Your task to perform on an android device: Set the phone to "Do not disturb". Image 0: 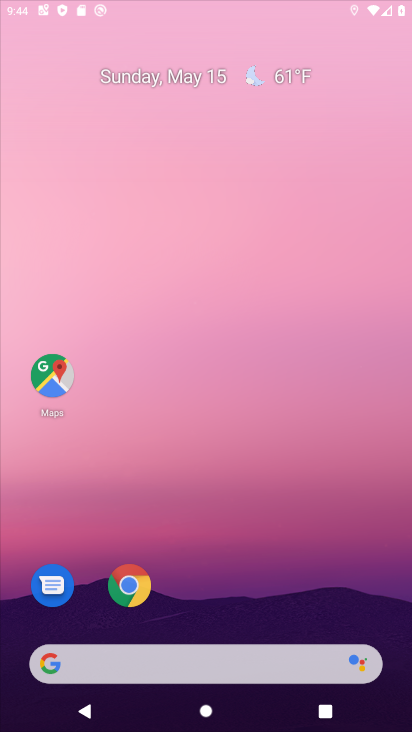
Step 0: click (404, 266)
Your task to perform on an android device: Set the phone to "Do not disturb". Image 1: 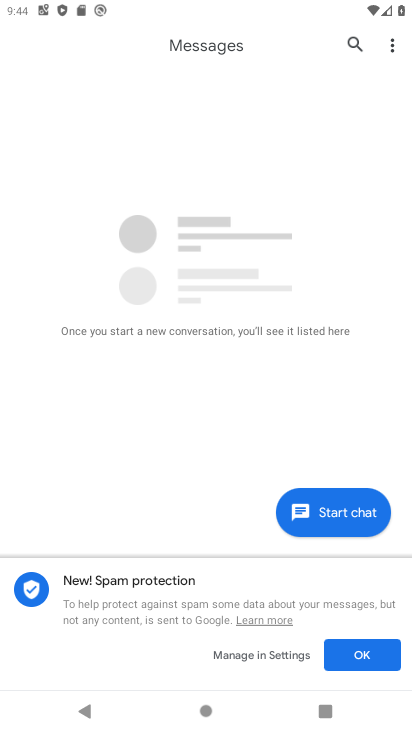
Step 1: press home button
Your task to perform on an android device: Set the phone to "Do not disturb". Image 2: 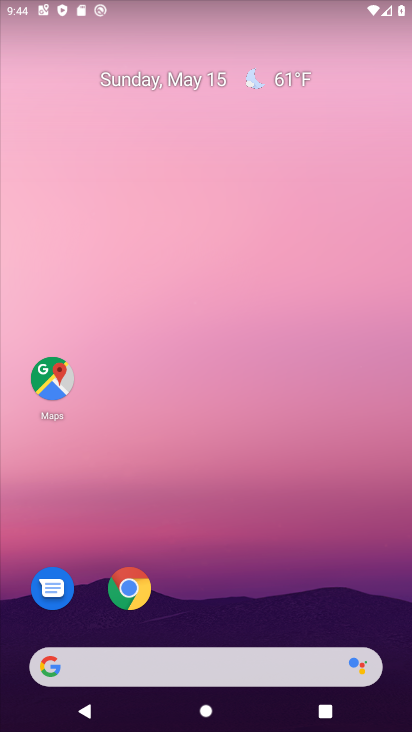
Step 2: drag from (217, 623) to (200, 5)
Your task to perform on an android device: Set the phone to "Do not disturb". Image 3: 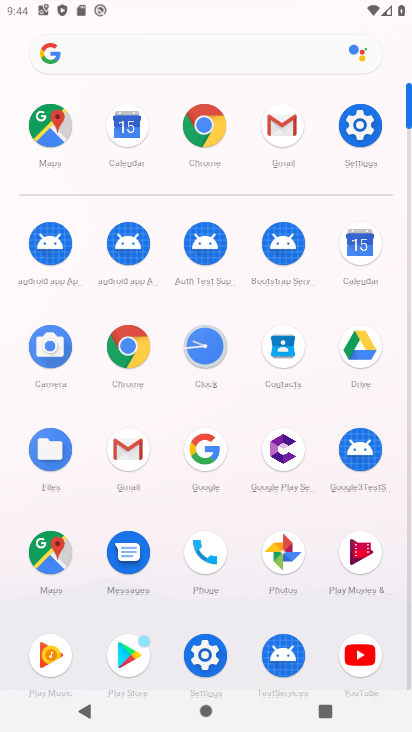
Step 3: click (361, 145)
Your task to perform on an android device: Set the phone to "Do not disturb". Image 4: 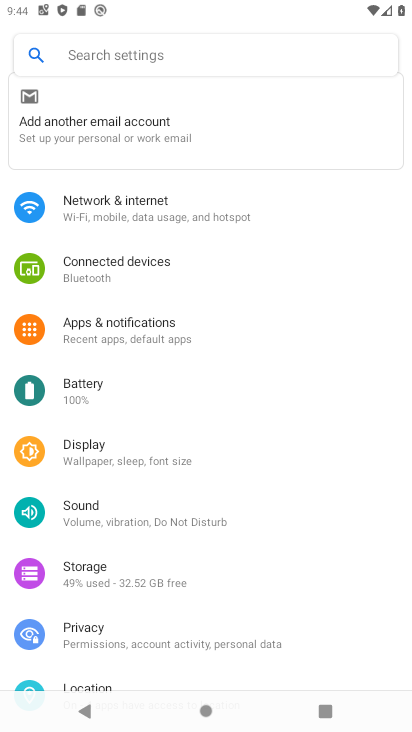
Step 4: click (129, 517)
Your task to perform on an android device: Set the phone to "Do not disturb". Image 5: 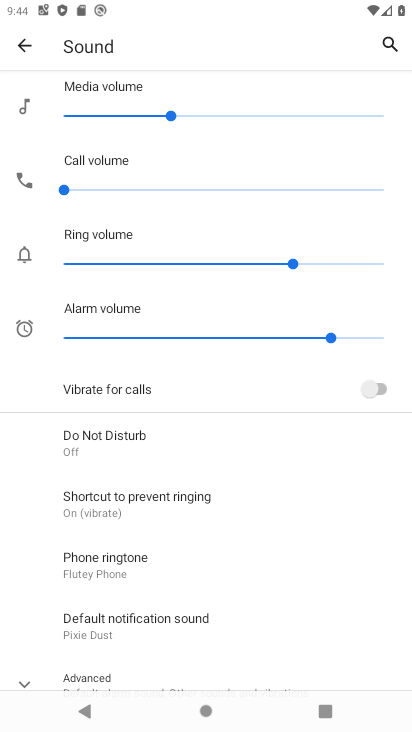
Step 5: click (88, 441)
Your task to perform on an android device: Set the phone to "Do not disturb". Image 6: 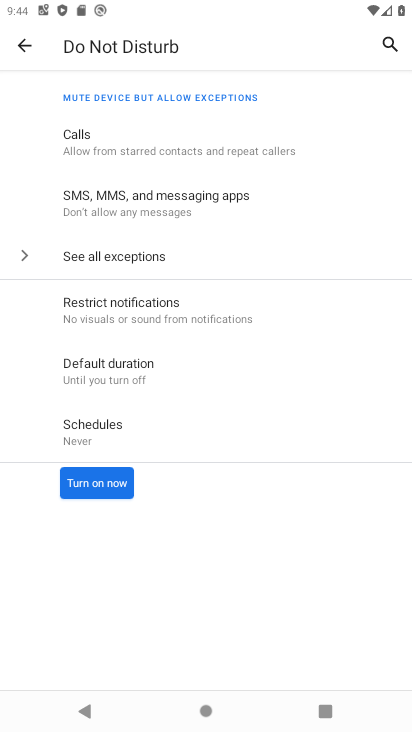
Step 6: click (102, 483)
Your task to perform on an android device: Set the phone to "Do not disturb". Image 7: 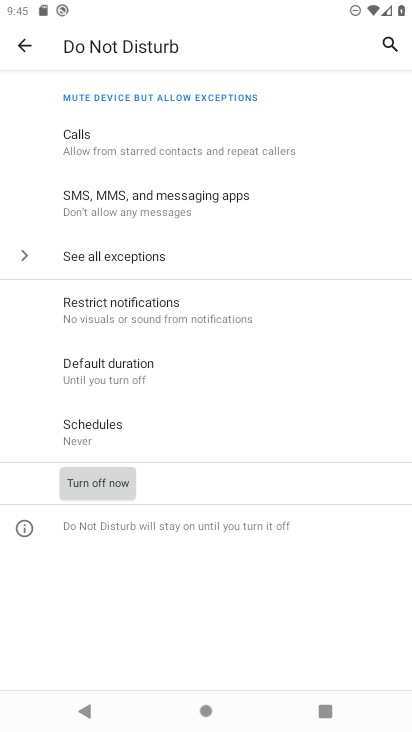
Step 7: task complete